Your task to perform on an android device: Go to Amazon Image 0: 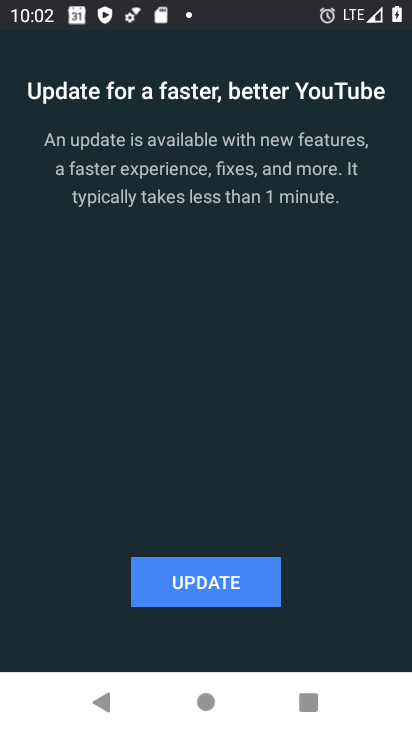
Step 0: press home button
Your task to perform on an android device: Go to Amazon Image 1: 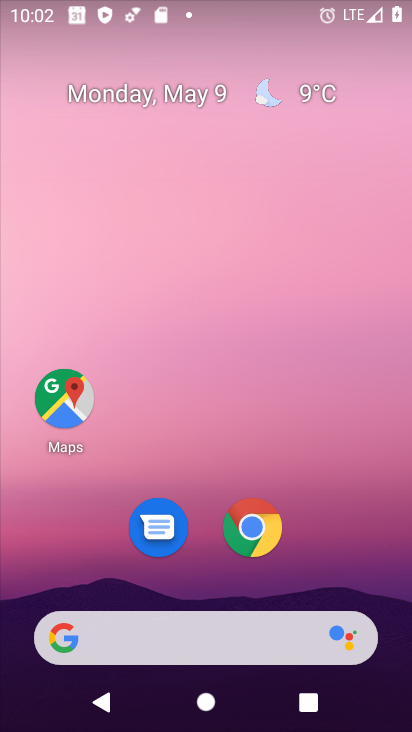
Step 1: click (248, 533)
Your task to perform on an android device: Go to Amazon Image 2: 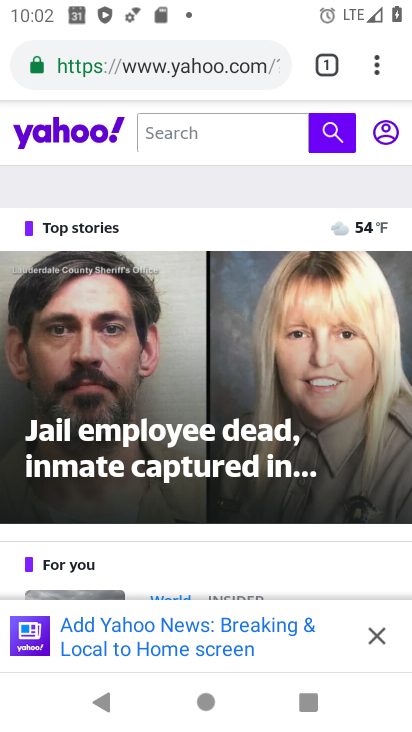
Step 2: click (371, 68)
Your task to perform on an android device: Go to Amazon Image 3: 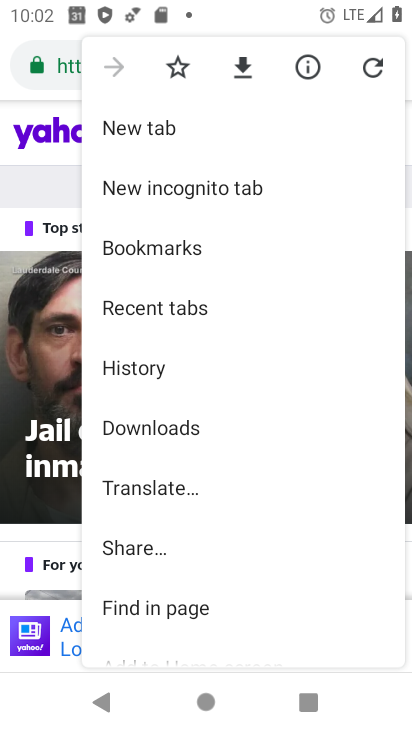
Step 3: click (145, 127)
Your task to perform on an android device: Go to Amazon Image 4: 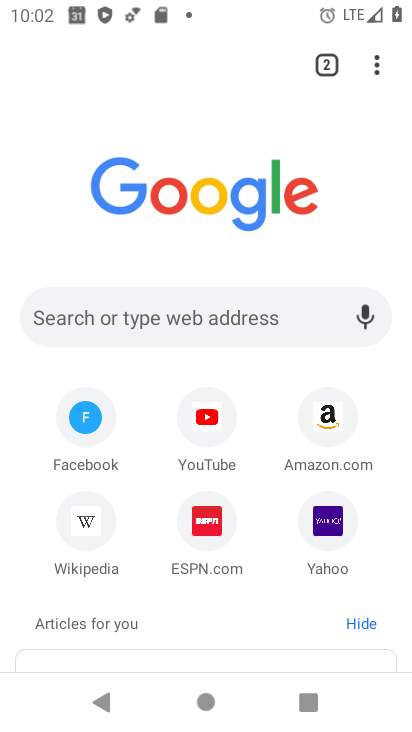
Step 4: click (321, 420)
Your task to perform on an android device: Go to Amazon Image 5: 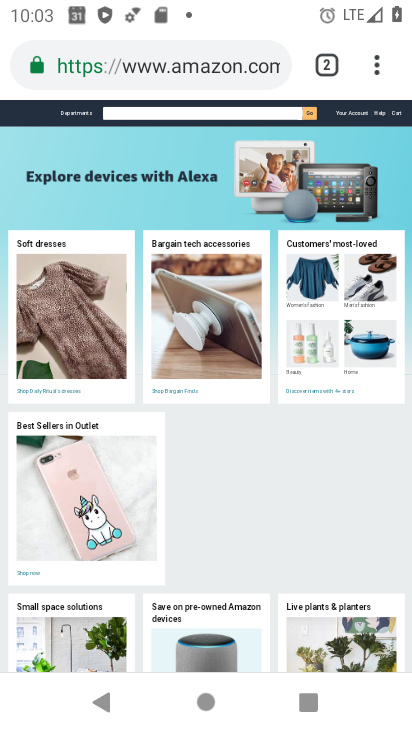
Step 5: task complete